Your task to perform on an android device: delete location history Image 0: 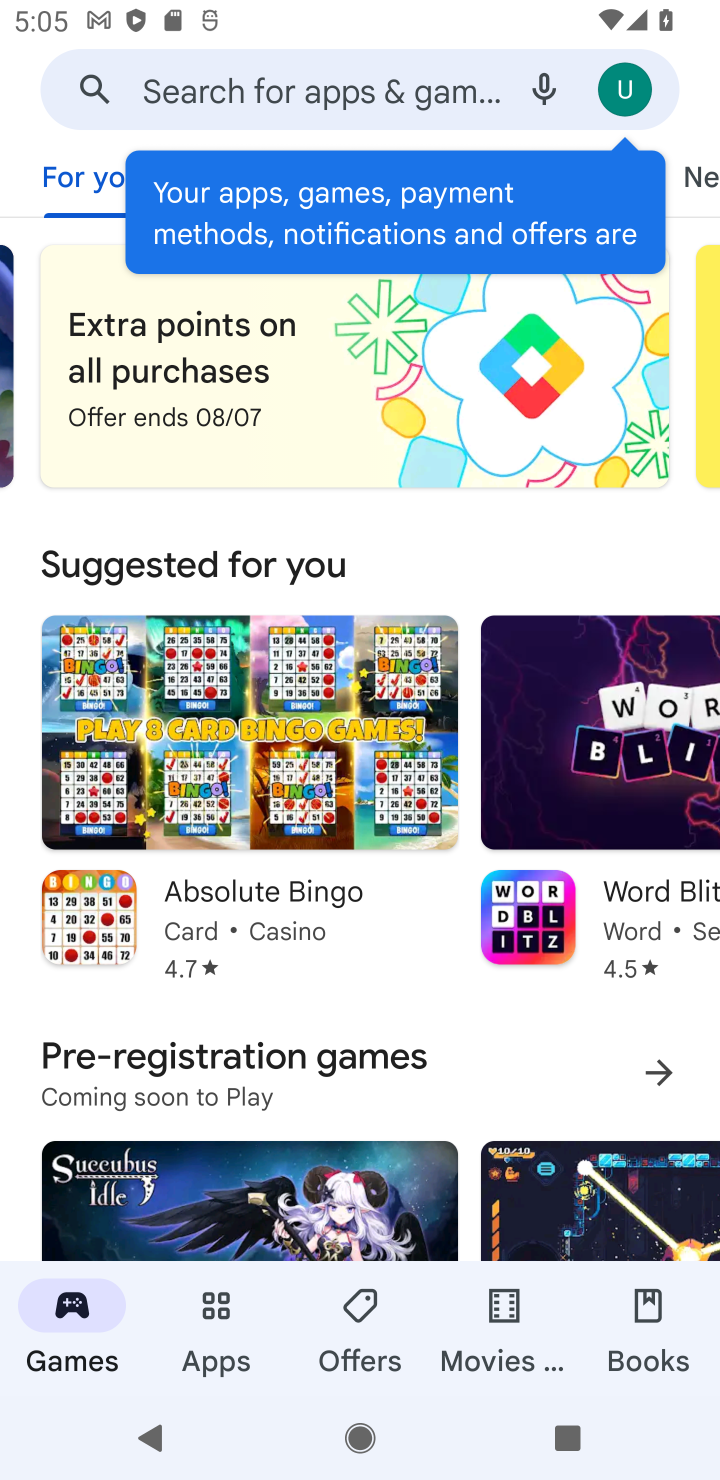
Step 0: task complete